Your task to perform on an android device: stop showing notifications on the lock screen Image 0: 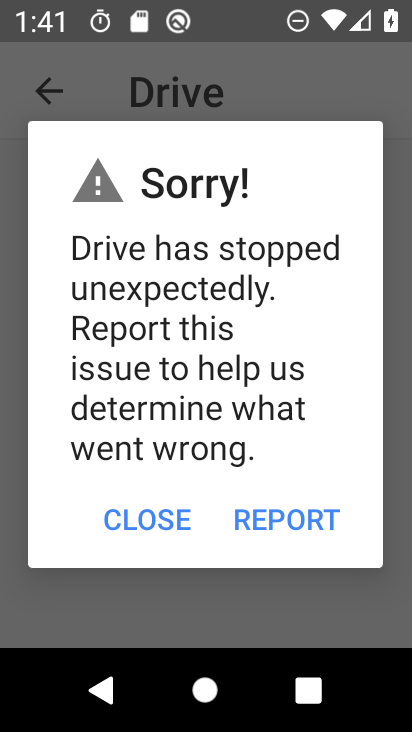
Step 0: press home button
Your task to perform on an android device: stop showing notifications on the lock screen Image 1: 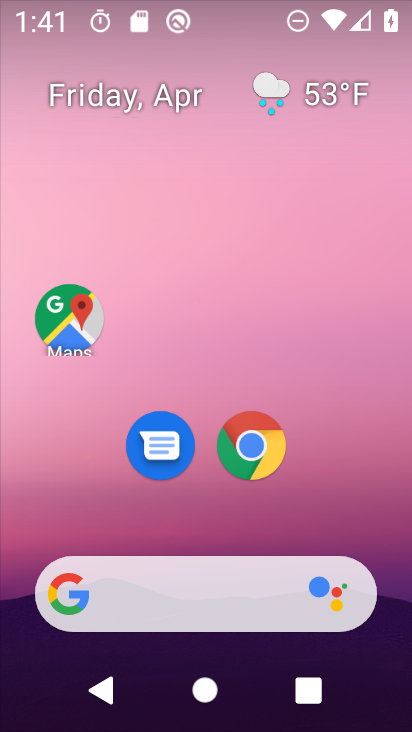
Step 1: drag from (345, 437) to (343, 122)
Your task to perform on an android device: stop showing notifications on the lock screen Image 2: 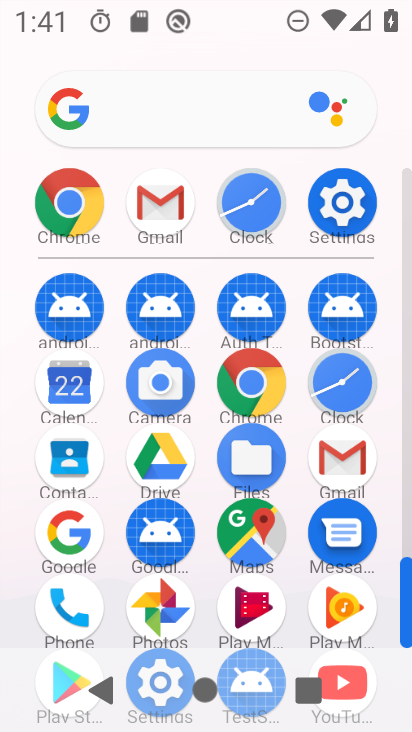
Step 2: click (344, 206)
Your task to perform on an android device: stop showing notifications on the lock screen Image 3: 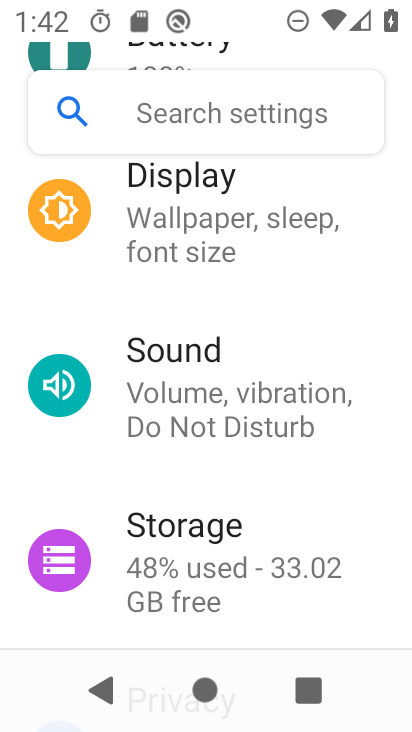
Step 3: drag from (378, 529) to (383, 375)
Your task to perform on an android device: stop showing notifications on the lock screen Image 4: 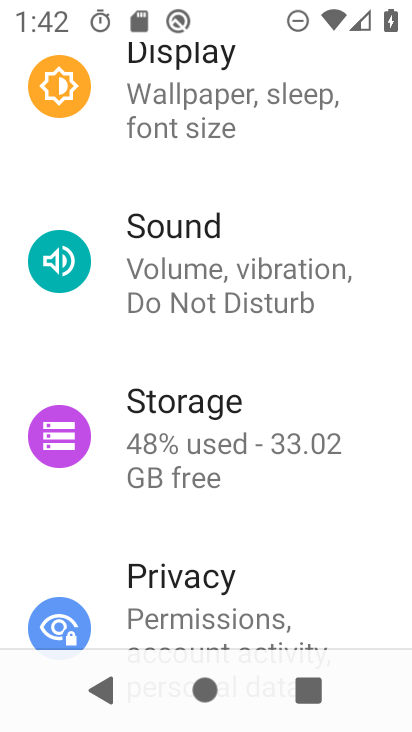
Step 4: drag from (352, 605) to (371, 352)
Your task to perform on an android device: stop showing notifications on the lock screen Image 5: 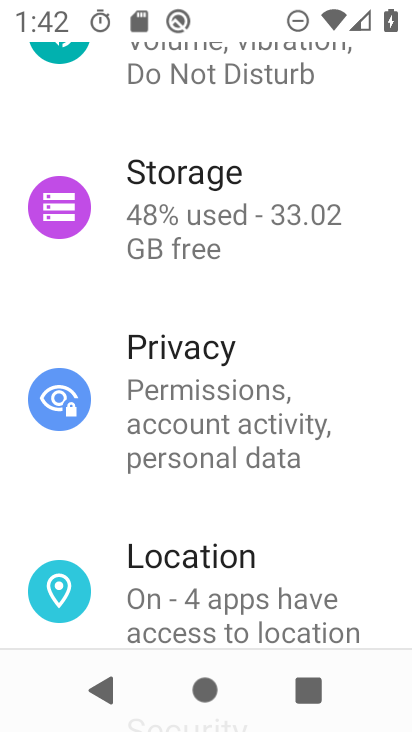
Step 5: drag from (358, 562) to (356, 298)
Your task to perform on an android device: stop showing notifications on the lock screen Image 6: 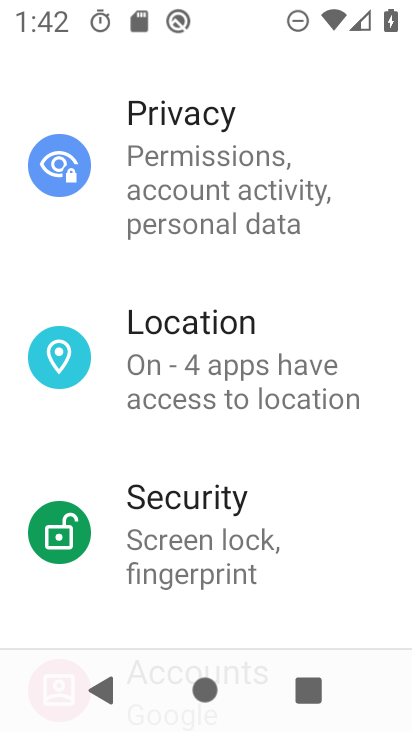
Step 6: drag from (367, 564) to (377, 326)
Your task to perform on an android device: stop showing notifications on the lock screen Image 7: 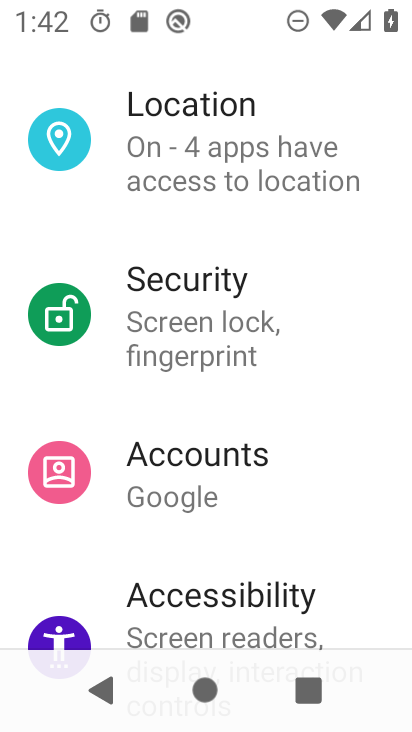
Step 7: drag from (374, 577) to (369, 312)
Your task to perform on an android device: stop showing notifications on the lock screen Image 8: 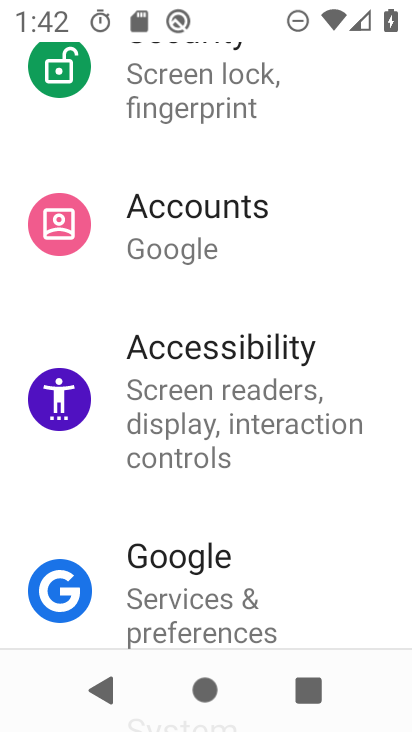
Step 8: drag from (367, 189) to (358, 353)
Your task to perform on an android device: stop showing notifications on the lock screen Image 9: 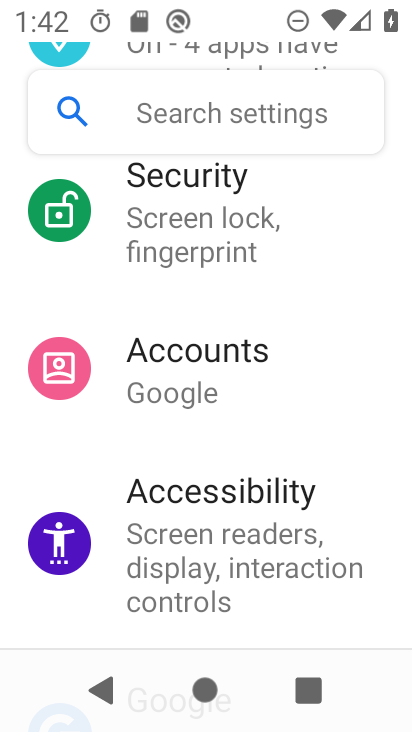
Step 9: drag from (345, 197) to (335, 392)
Your task to perform on an android device: stop showing notifications on the lock screen Image 10: 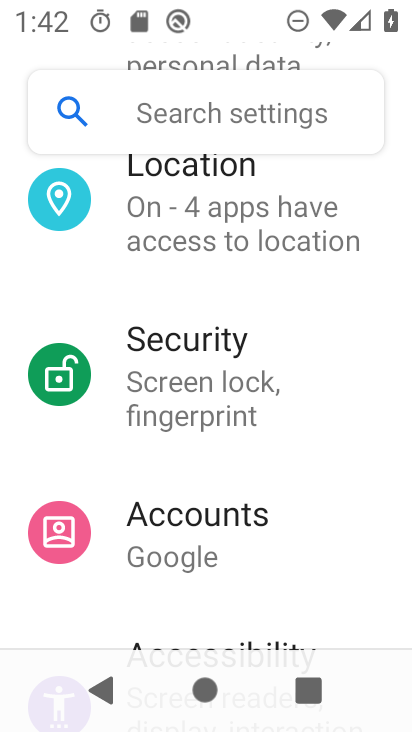
Step 10: drag from (373, 198) to (365, 410)
Your task to perform on an android device: stop showing notifications on the lock screen Image 11: 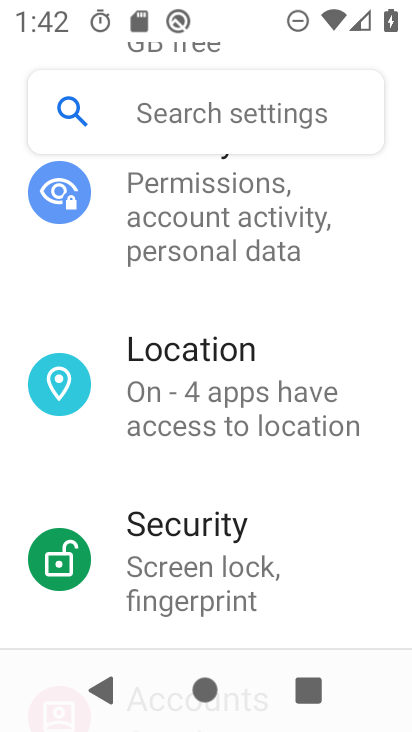
Step 11: drag from (375, 231) to (383, 400)
Your task to perform on an android device: stop showing notifications on the lock screen Image 12: 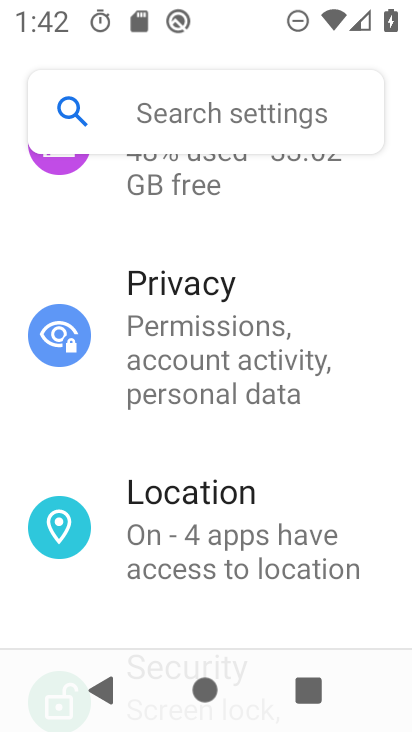
Step 12: drag from (367, 249) to (368, 397)
Your task to perform on an android device: stop showing notifications on the lock screen Image 13: 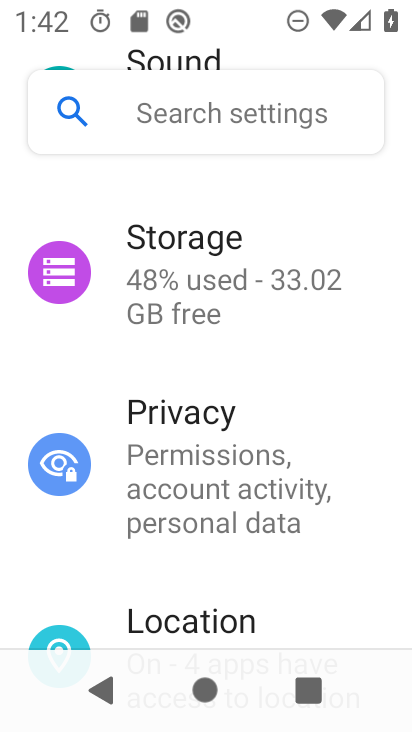
Step 13: drag from (372, 222) to (373, 391)
Your task to perform on an android device: stop showing notifications on the lock screen Image 14: 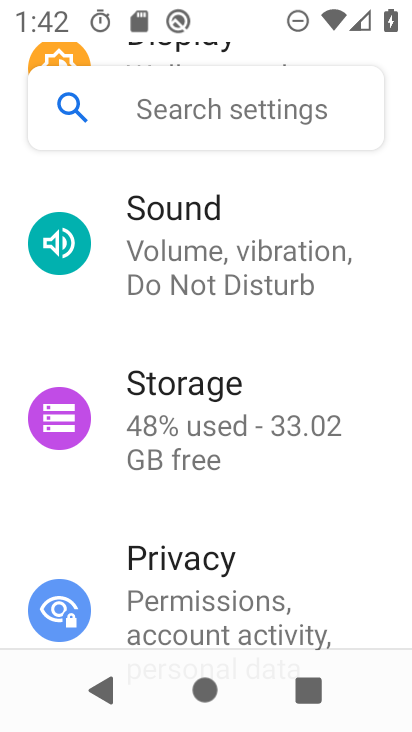
Step 14: drag from (369, 214) to (357, 409)
Your task to perform on an android device: stop showing notifications on the lock screen Image 15: 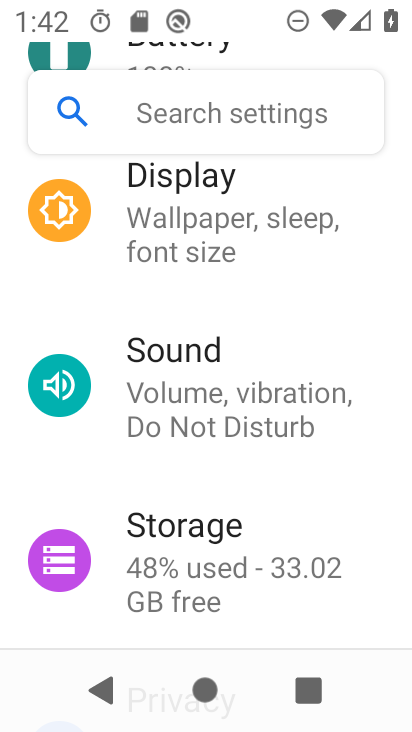
Step 15: drag from (363, 195) to (360, 405)
Your task to perform on an android device: stop showing notifications on the lock screen Image 16: 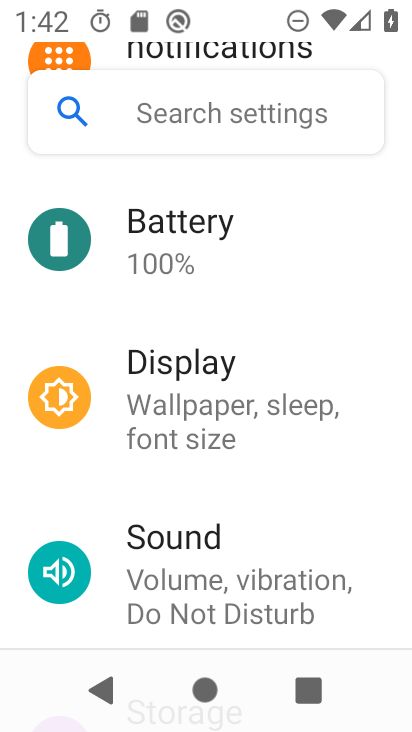
Step 16: drag from (371, 204) to (364, 421)
Your task to perform on an android device: stop showing notifications on the lock screen Image 17: 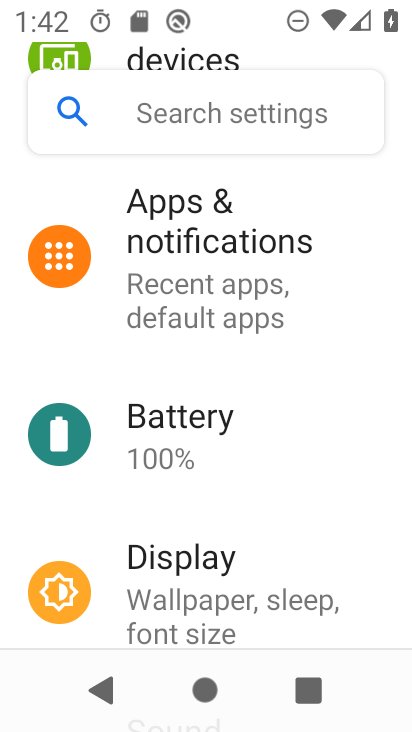
Step 17: click (220, 274)
Your task to perform on an android device: stop showing notifications on the lock screen Image 18: 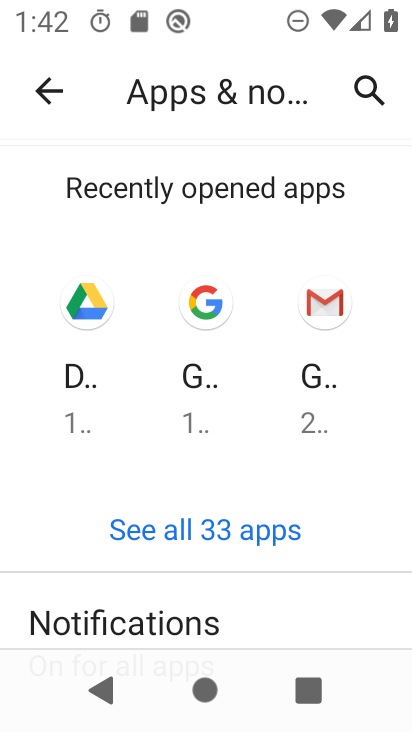
Step 18: drag from (320, 593) to (341, 295)
Your task to perform on an android device: stop showing notifications on the lock screen Image 19: 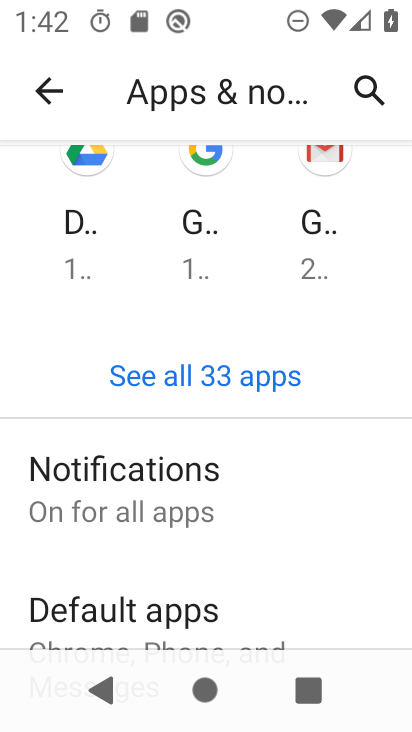
Step 19: click (175, 505)
Your task to perform on an android device: stop showing notifications on the lock screen Image 20: 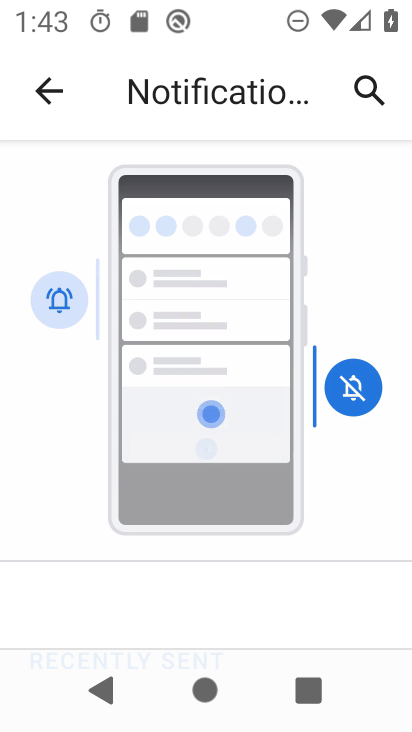
Step 20: drag from (321, 563) to (334, 367)
Your task to perform on an android device: stop showing notifications on the lock screen Image 21: 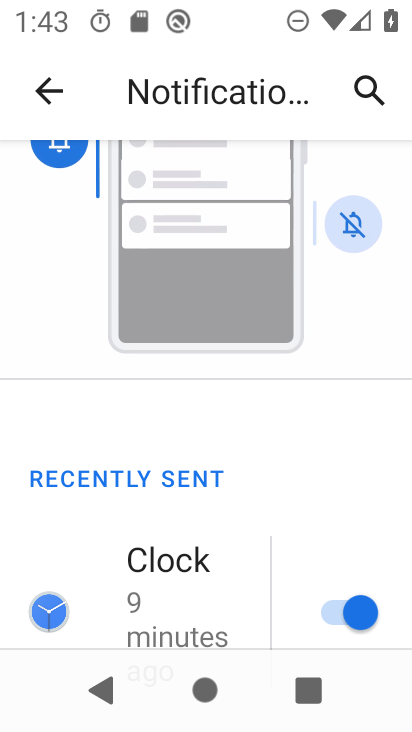
Step 21: drag from (299, 548) to (302, 383)
Your task to perform on an android device: stop showing notifications on the lock screen Image 22: 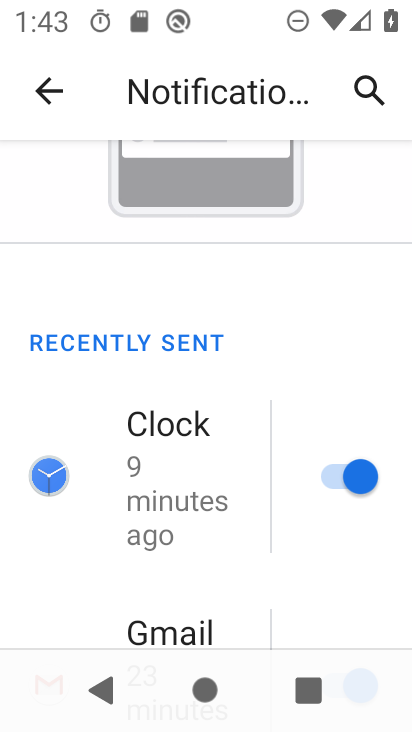
Step 22: drag from (246, 569) to (245, 424)
Your task to perform on an android device: stop showing notifications on the lock screen Image 23: 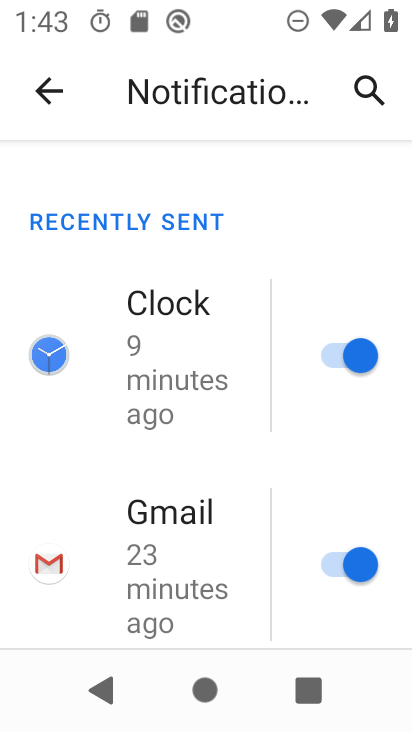
Step 23: drag from (242, 607) to (257, 361)
Your task to perform on an android device: stop showing notifications on the lock screen Image 24: 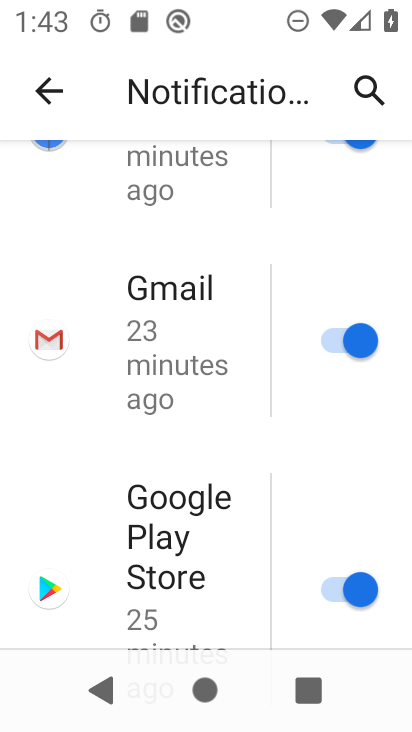
Step 24: drag from (239, 573) to (241, 347)
Your task to perform on an android device: stop showing notifications on the lock screen Image 25: 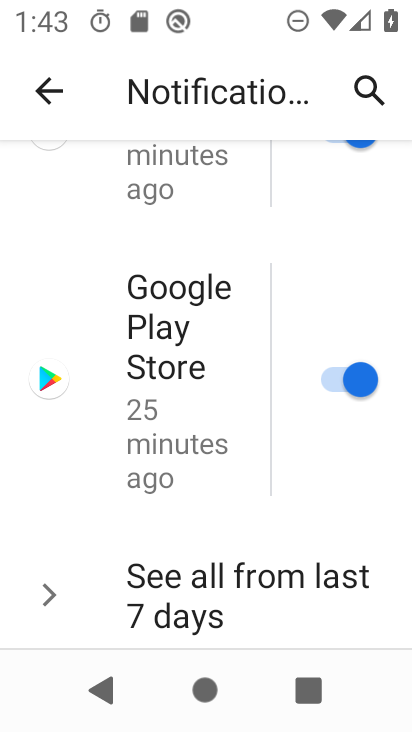
Step 25: drag from (224, 597) to (229, 334)
Your task to perform on an android device: stop showing notifications on the lock screen Image 26: 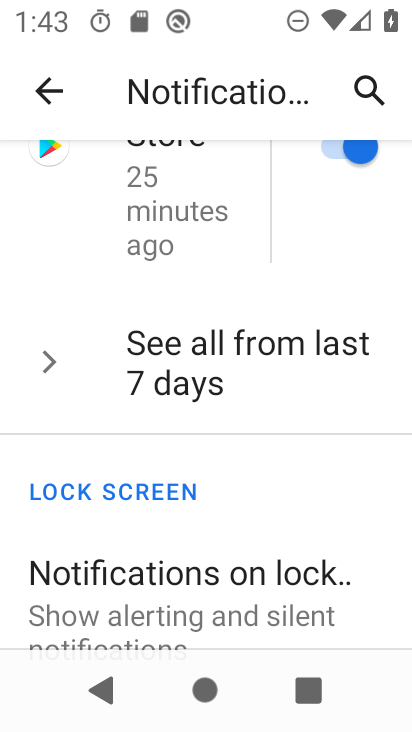
Step 26: click (211, 602)
Your task to perform on an android device: stop showing notifications on the lock screen Image 27: 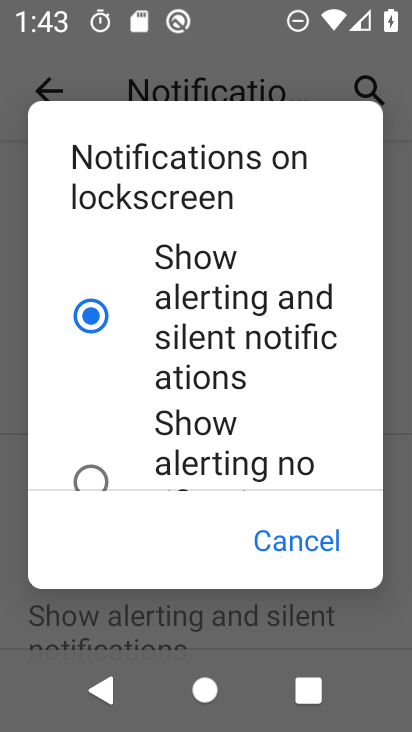
Step 27: drag from (262, 417) to (294, 242)
Your task to perform on an android device: stop showing notifications on the lock screen Image 28: 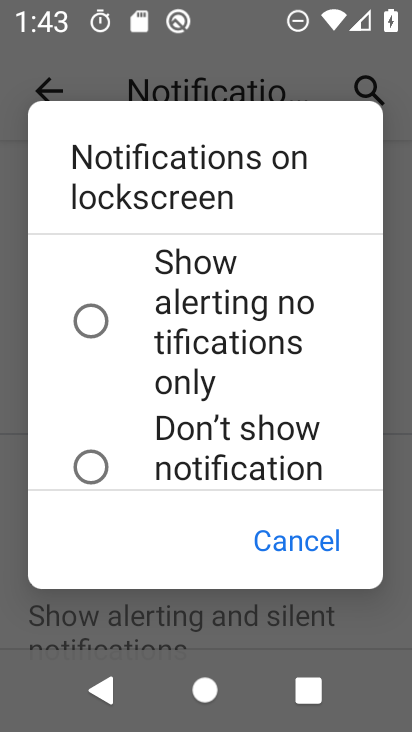
Step 28: drag from (355, 461) to (357, 316)
Your task to perform on an android device: stop showing notifications on the lock screen Image 29: 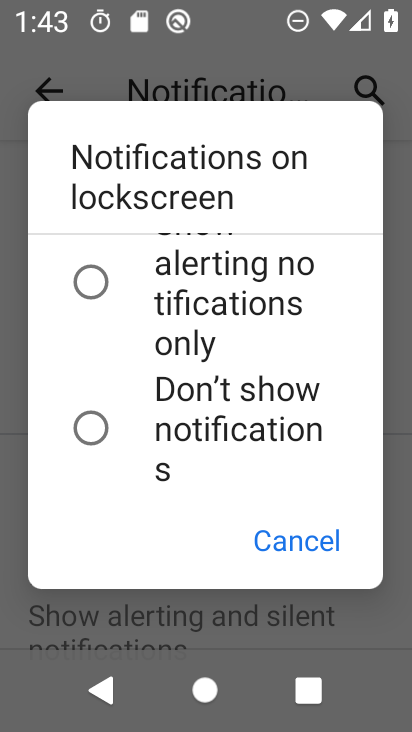
Step 29: click (187, 418)
Your task to perform on an android device: stop showing notifications on the lock screen Image 30: 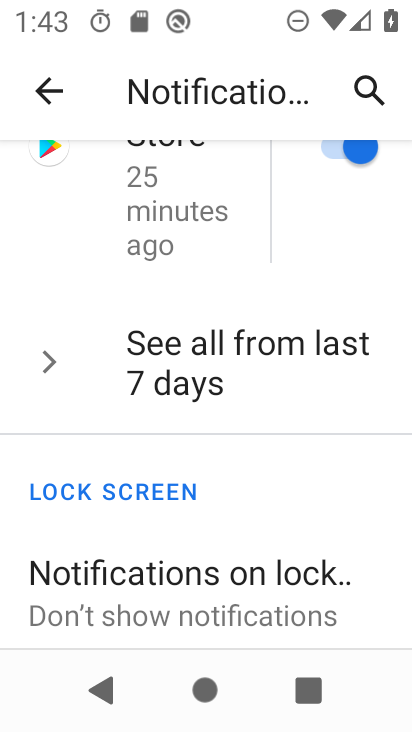
Step 30: task complete